Your task to perform on an android device: turn on notifications settings in the gmail app Image 0: 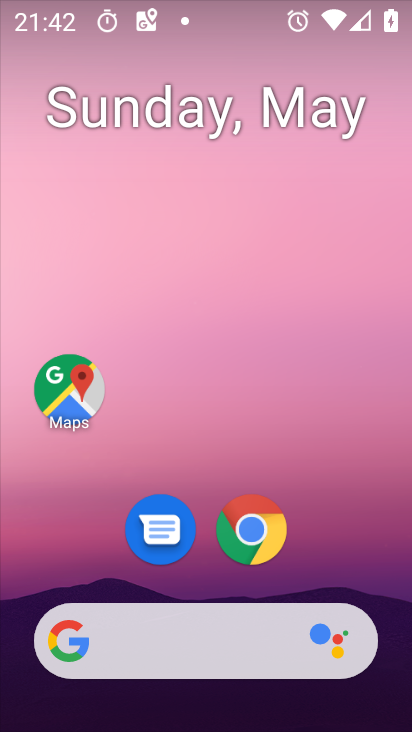
Step 0: drag from (382, 588) to (349, 1)
Your task to perform on an android device: turn on notifications settings in the gmail app Image 1: 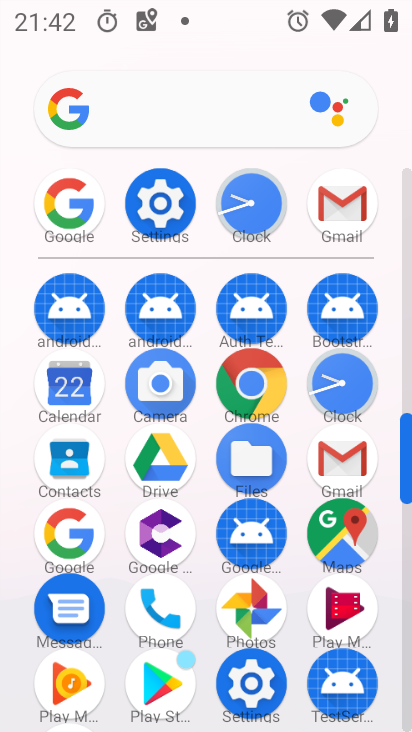
Step 1: click (332, 213)
Your task to perform on an android device: turn on notifications settings in the gmail app Image 2: 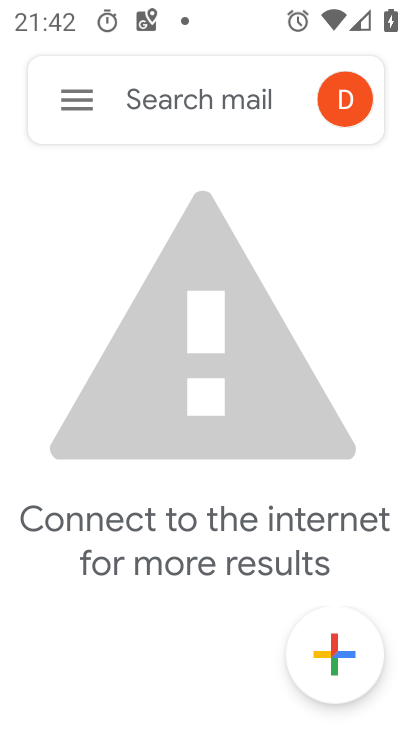
Step 2: click (77, 96)
Your task to perform on an android device: turn on notifications settings in the gmail app Image 3: 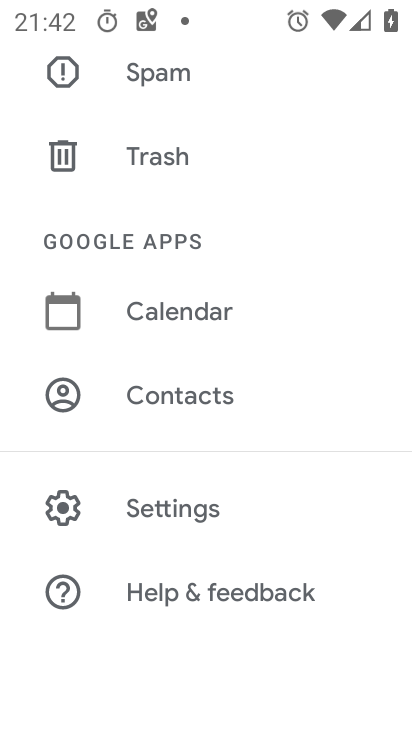
Step 3: click (188, 501)
Your task to perform on an android device: turn on notifications settings in the gmail app Image 4: 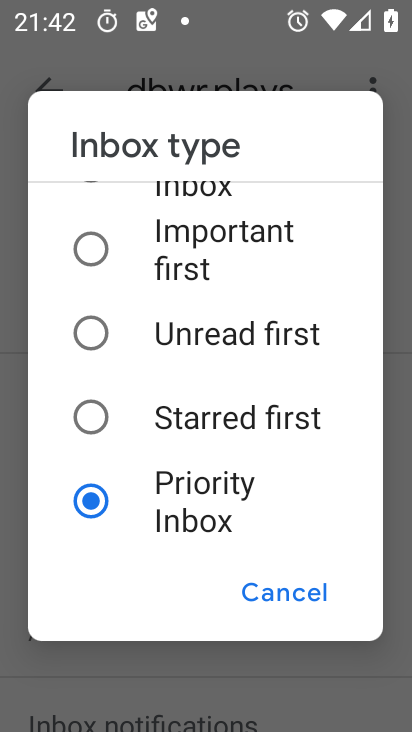
Step 4: click (309, 600)
Your task to perform on an android device: turn on notifications settings in the gmail app Image 5: 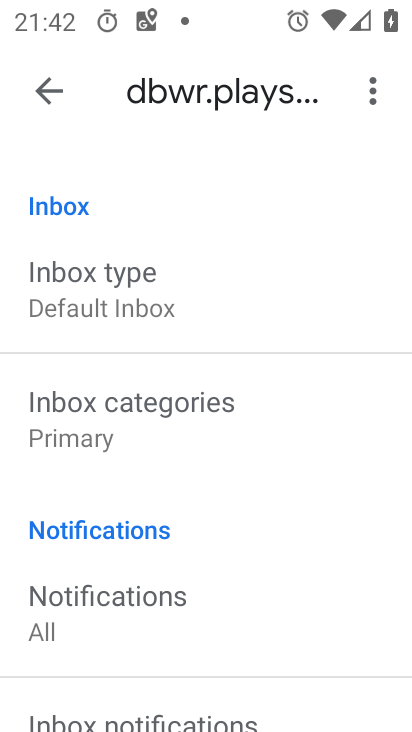
Step 5: click (42, 89)
Your task to perform on an android device: turn on notifications settings in the gmail app Image 6: 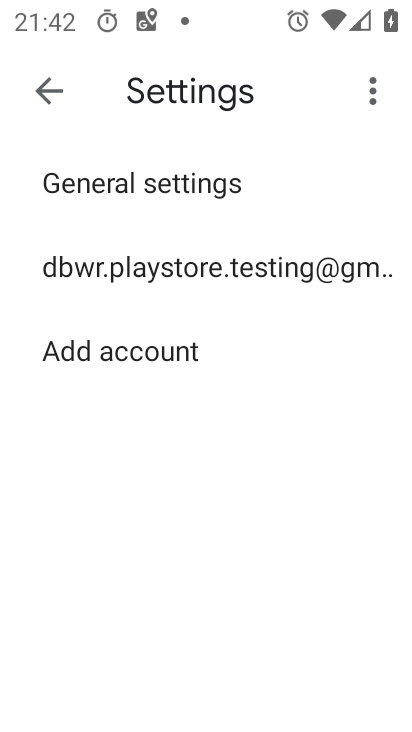
Step 6: click (95, 180)
Your task to perform on an android device: turn on notifications settings in the gmail app Image 7: 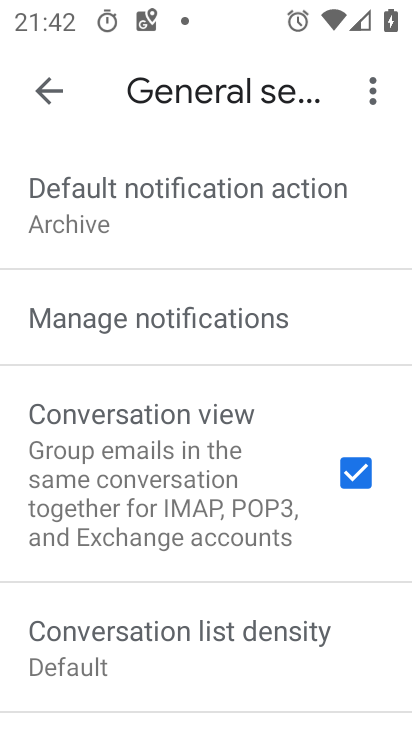
Step 7: click (137, 314)
Your task to perform on an android device: turn on notifications settings in the gmail app Image 8: 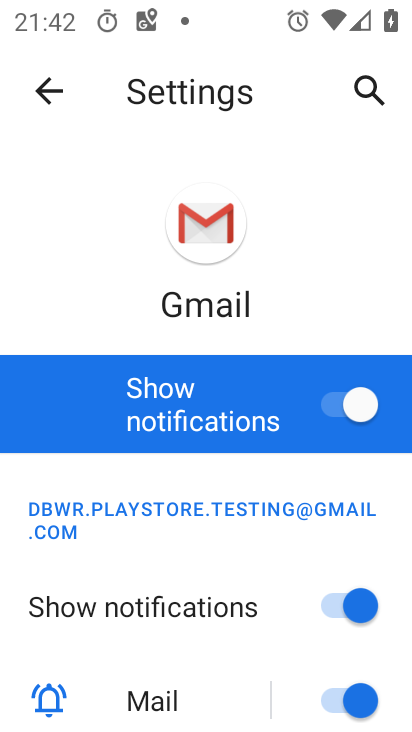
Step 8: task complete